Your task to perform on an android device: show emergency info Image 0: 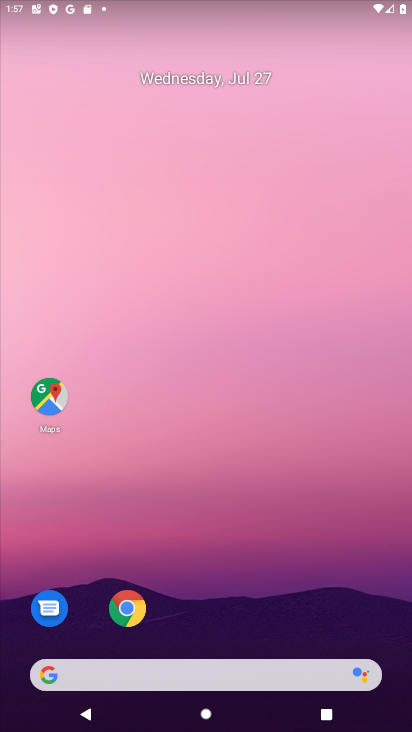
Step 0: drag from (38, 703) to (267, 228)
Your task to perform on an android device: show emergency info Image 1: 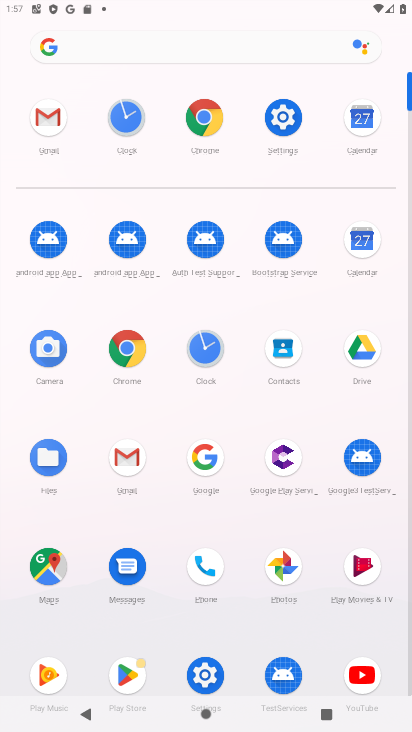
Step 1: click (208, 677)
Your task to perform on an android device: show emergency info Image 2: 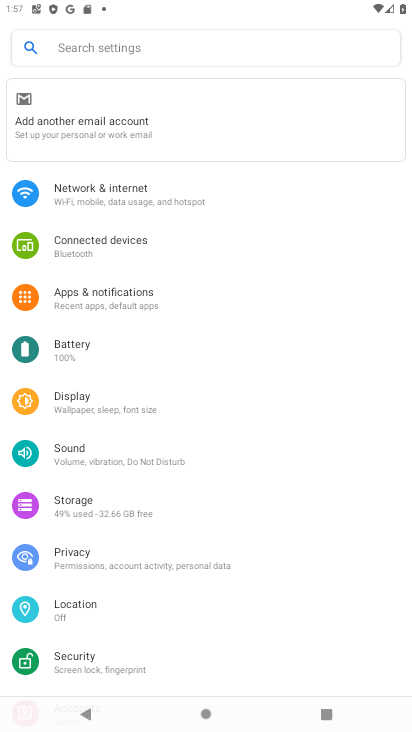
Step 2: click (76, 302)
Your task to perform on an android device: show emergency info Image 3: 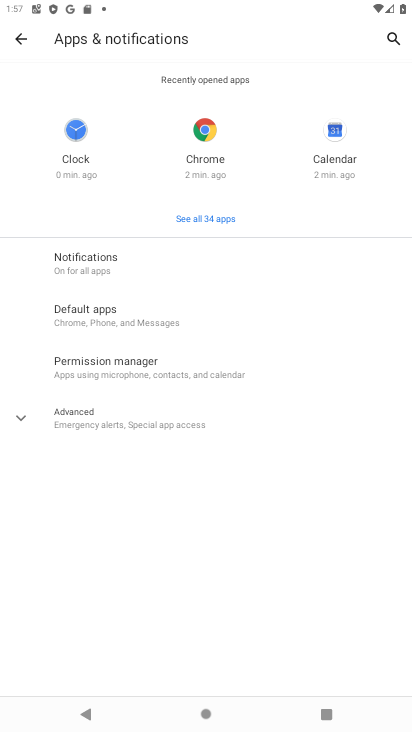
Step 3: click (144, 431)
Your task to perform on an android device: show emergency info Image 4: 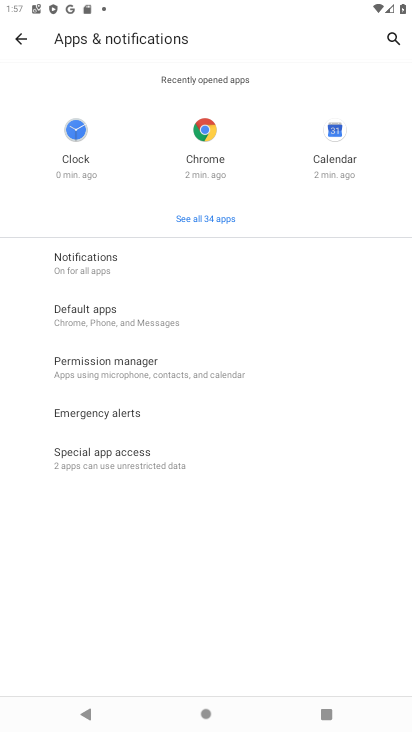
Step 4: click (128, 414)
Your task to perform on an android device: show emergency info Image 5: 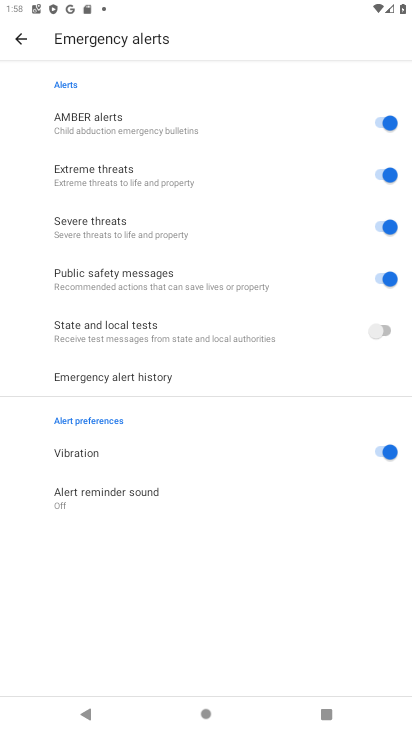
Step 5: task complete